Your task to perform on an android device: turn on improve location accuracy Image 0: 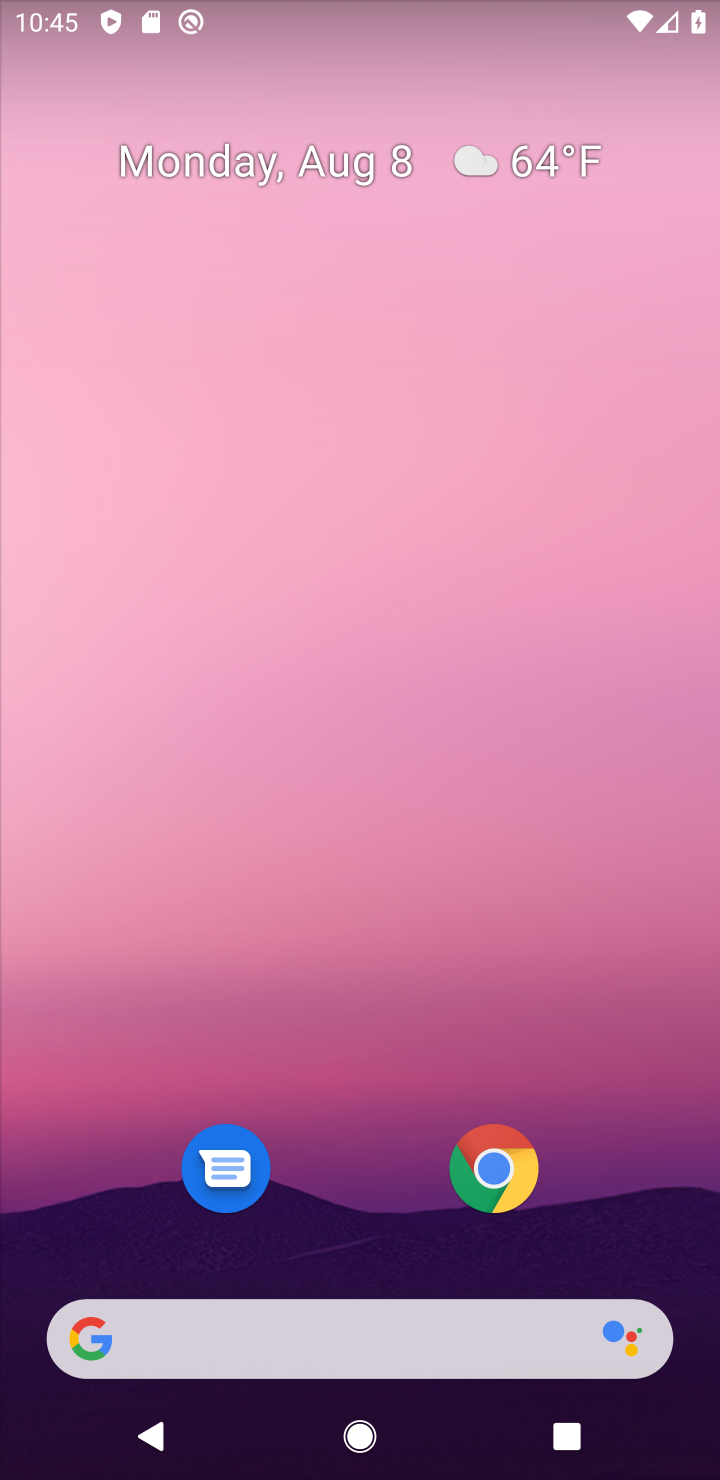
Step 0: task complete